Your task to perform on an android device: open chrome privacy settings Image 0: 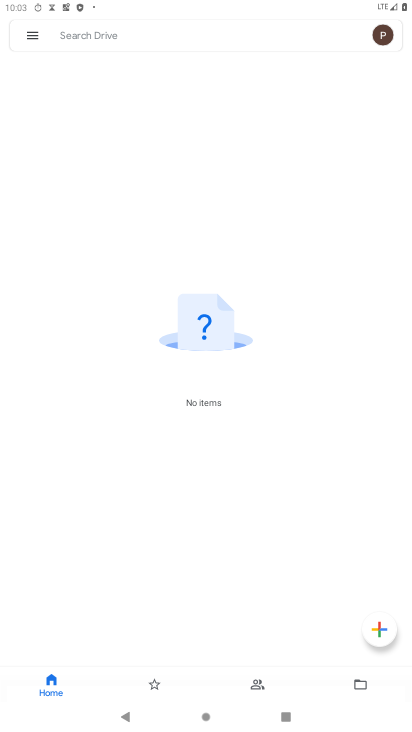
Step 0: press home button
Your task to perform on an android device: open chrome privacy settings Image 1: 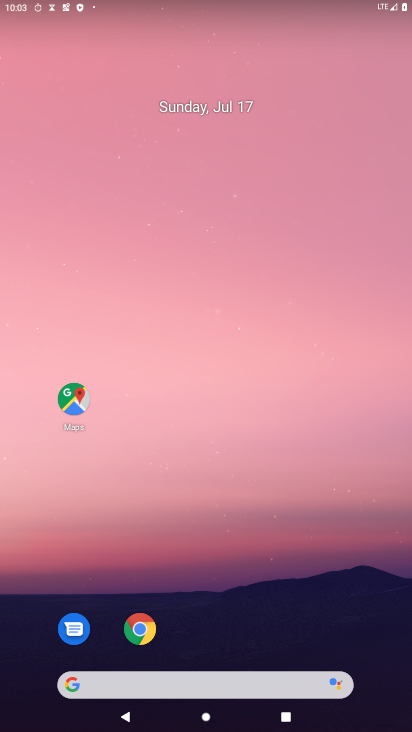
Step 1: drag from (222, 722) to (222, 129)
Your task to perform on an android device: open chrome privacy settings Image 2: 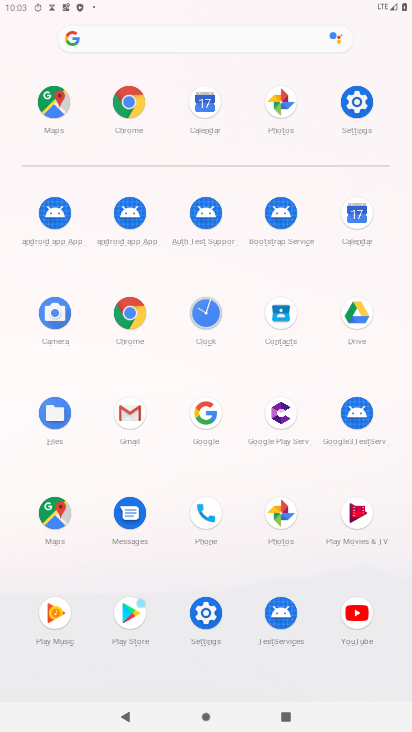
Step 2: click (132, 311)
Your task to perform on an android device: open chrome privacy settings Image 3: 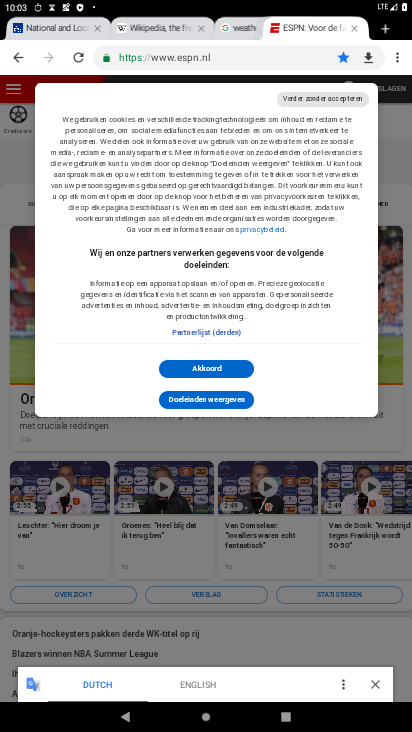
Step 3: click (396, 59)
Your task to perform on an android device: open chrome privacy settings Image 4: 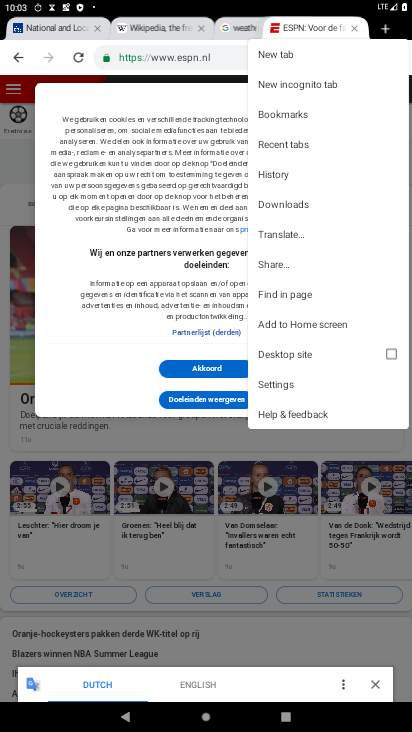
Step 4: click (276, 380)
Your task to perform on an android device: open chrome privacy settings Image 5: 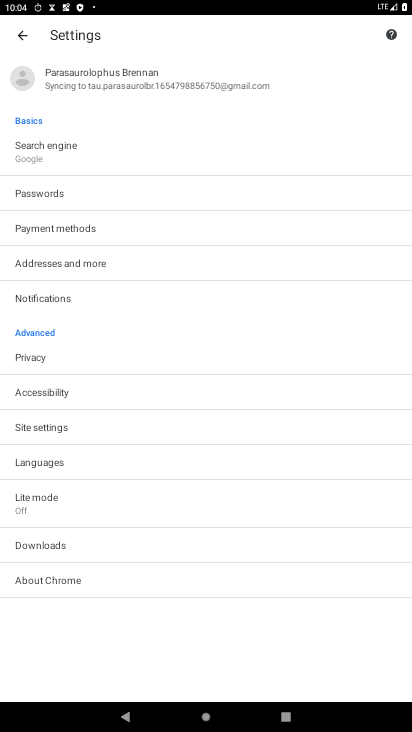
Step 5: click (35, 350)
Your task to perform on an android device: open chrome privacy settings Image 6: 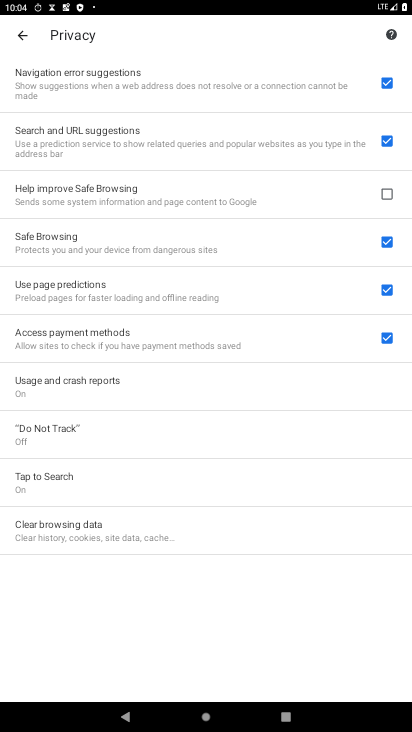
Step 6: task complete